Your task to perform on an android device: Show me productivity apps on the Play Store Image 0: 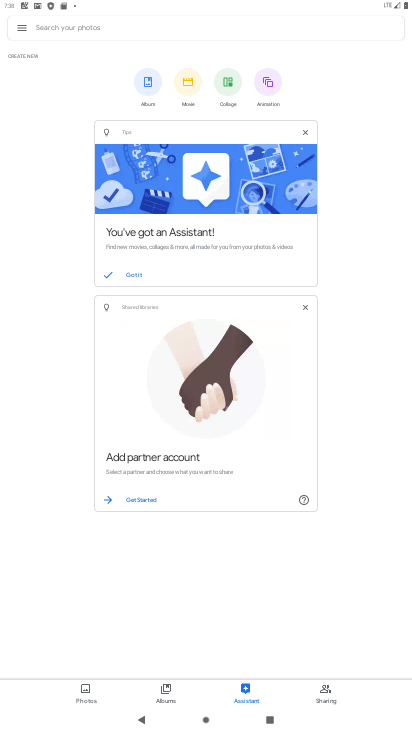
Step 0: press home button
Your task to perform on an android device: Show me productivity apps on the Play Store Image 1: 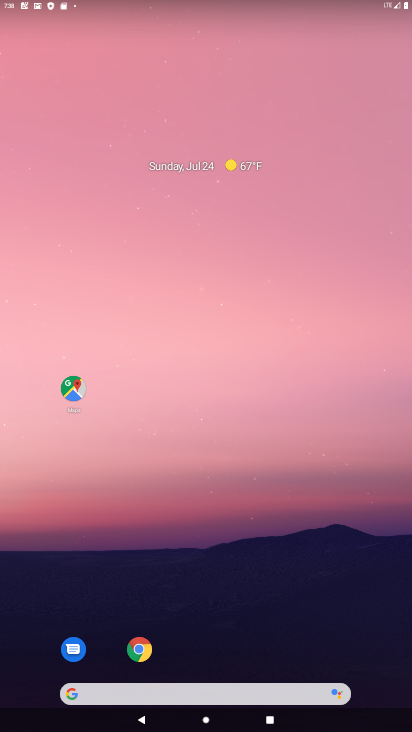
Step 1: drag from (227, 662) to (151, 123)
Your task to perform on an android device: Show me productivity apps on the Play Store Image 2: 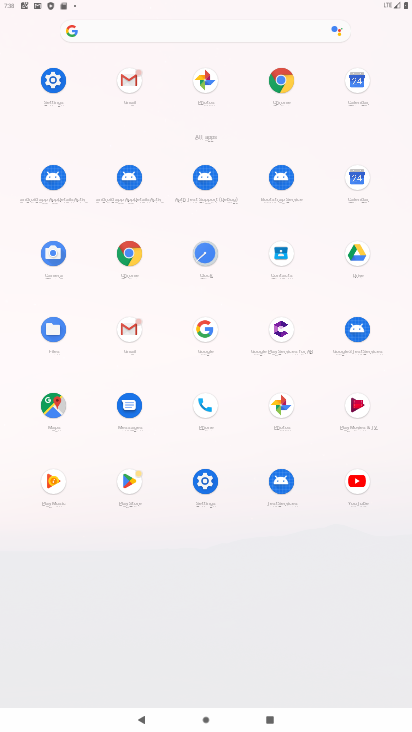
Step 2: click (132, 478)
Your task to perform on an android device: Show me productivity apps on the Play Store Image 3: 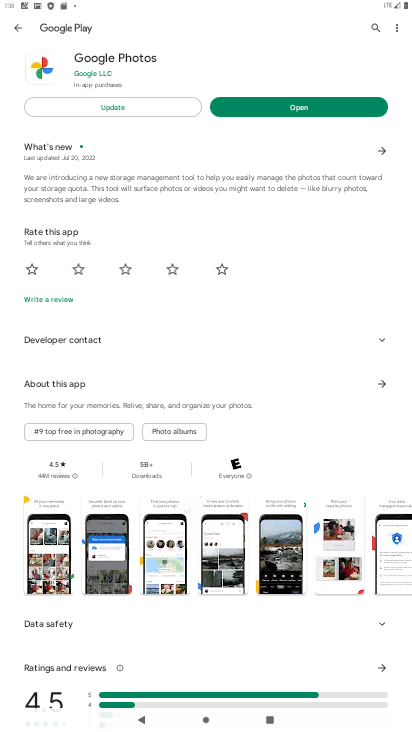
Step 3: click (15, 30)
Your task to perform on an android device: Show me productivity apps on the Play Store Image 4: 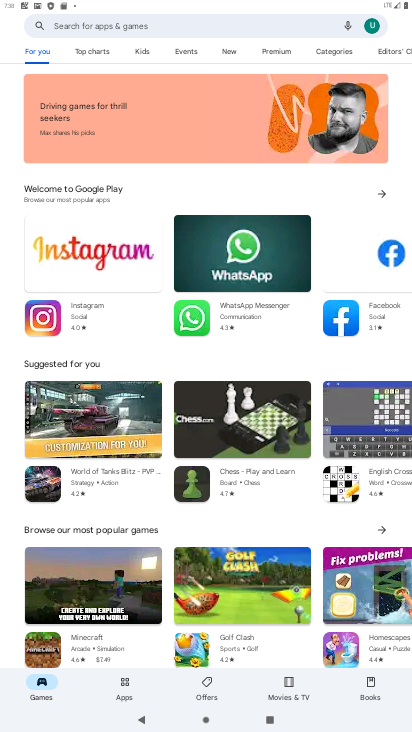
Step 4: click (116, 678)
Your task to perform on an android device: Show me productivity apps on the Play Store Image 5: 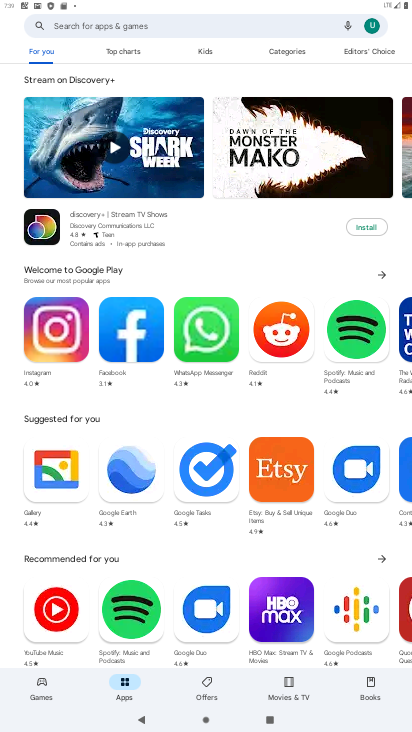
Step 5: click (293, 46)
Your task to perform on an android device: Show me productivity apps on the Play Store Image 6: 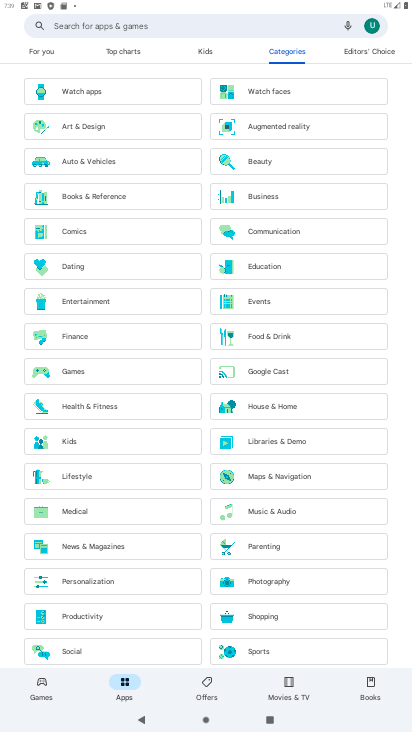
Step 6: click (112, 616)
Your task to perform on an android device: Show me productivity apps on the Play Store Image 7: 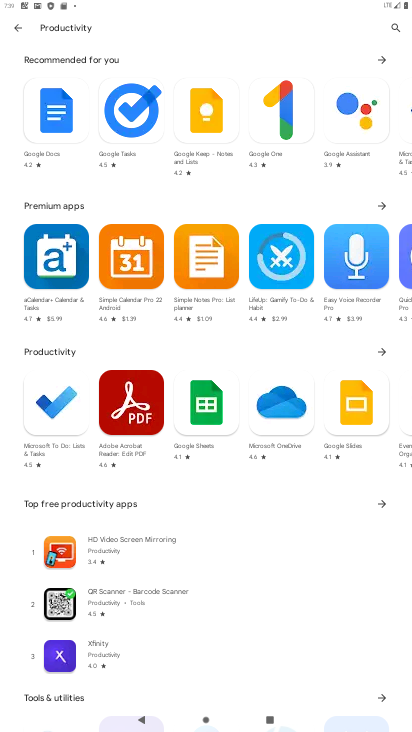
Step 7: task complete